Your task to perform on an android device: delete location history Image 0: 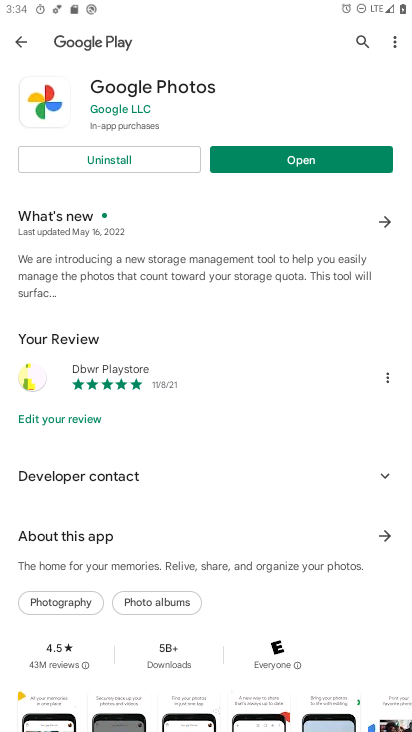
Step 0: press home button
Your task to perform on an android device: delete location history Image 1: 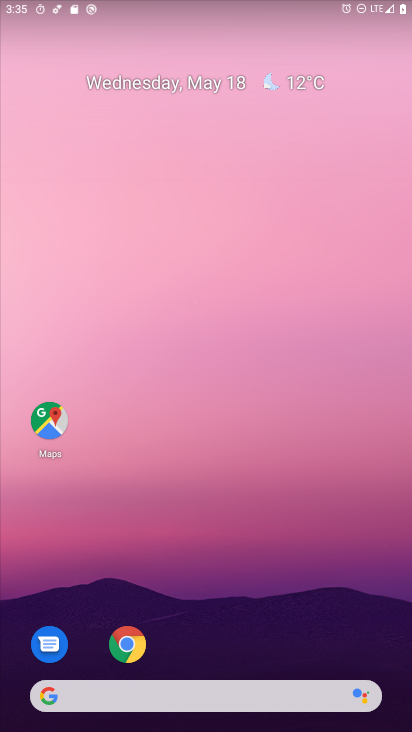
Step 1: click (44, 412)
Your task to perform on an android device: delete location history Image 2: 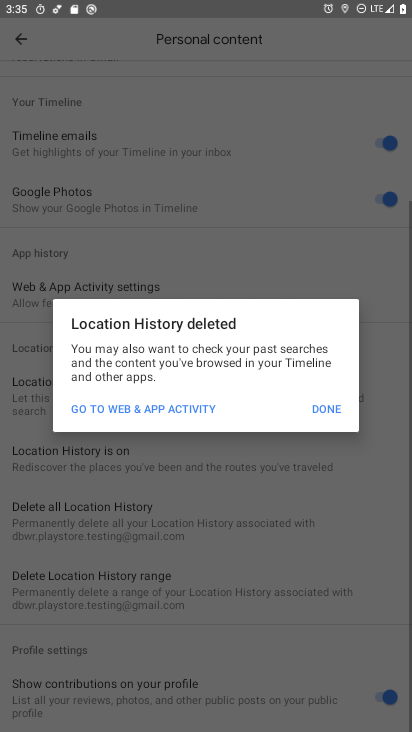
Step 2: click (336, 407)
Your task to perform on an android device: delete location history Image 3: 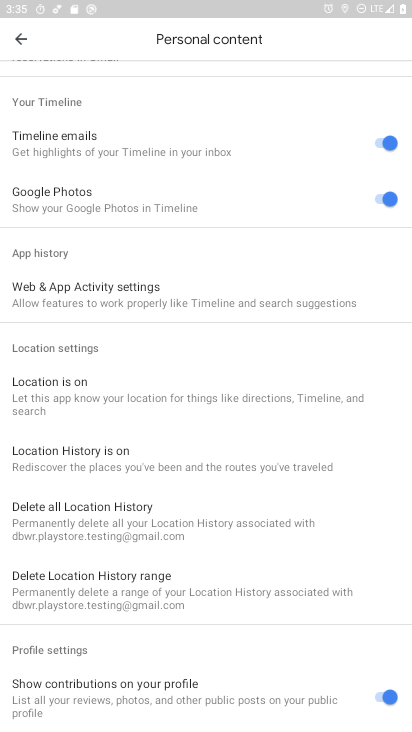
Step 3: click (13, 40)
Your task to perform on an android device: delete location history Image 4: 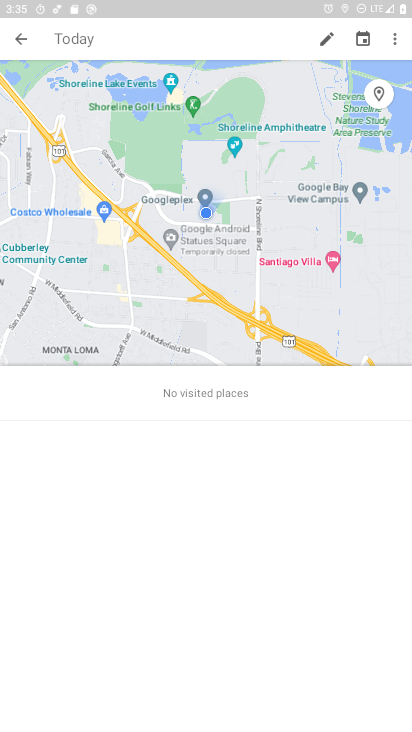
Step 4: click (397, 38)
Your task to perform on an android device: delete location history Image 5: 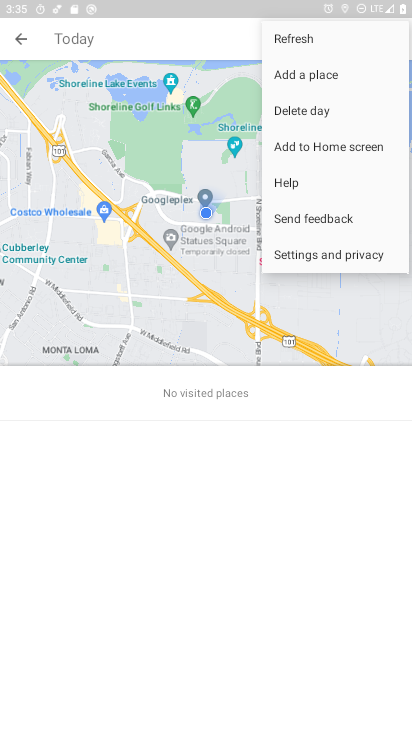
Step 5: click (300, 256)
Your task to perform on an android device: delete location history Image 6: 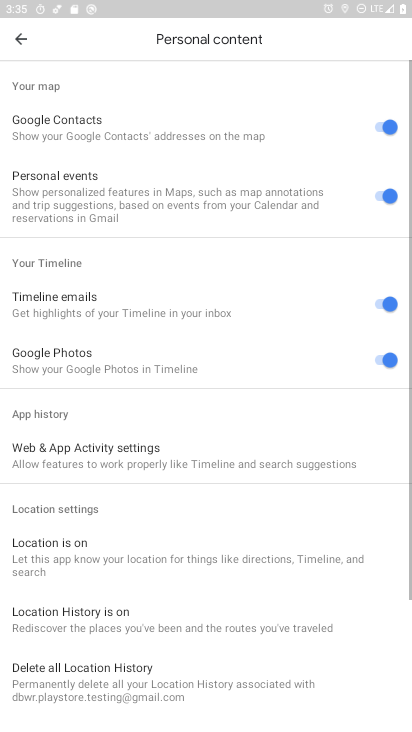
Step 6: task complete